Your task to perform on an android device: View the shopping cart on costco. Search for "acer predator" on costco, select the first entry, and add it to the cart. Image 0: 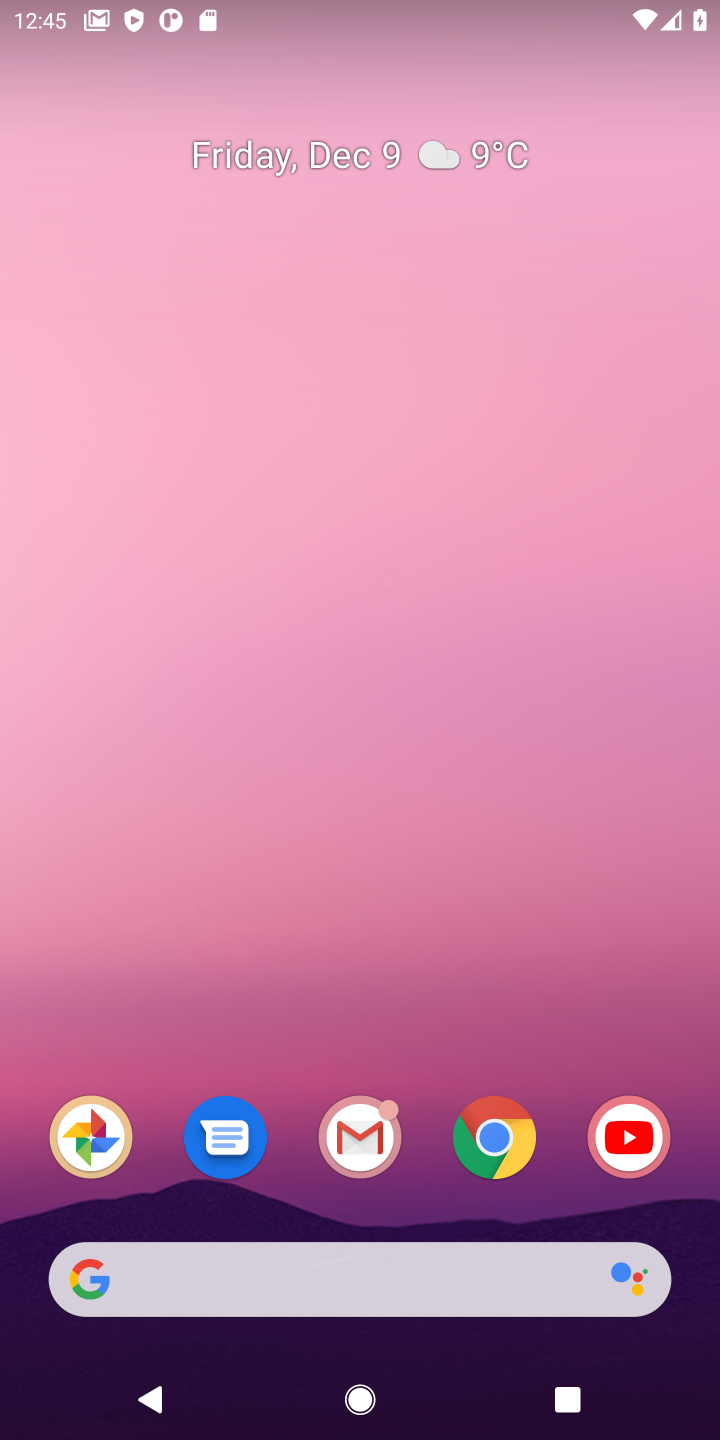
Step 0: click (449, 1251)
Your task to perform on an android device: View the shopping cart on costco. Search for "acer predator" on costco, select the first entry, and add it to the cart. Image 1: 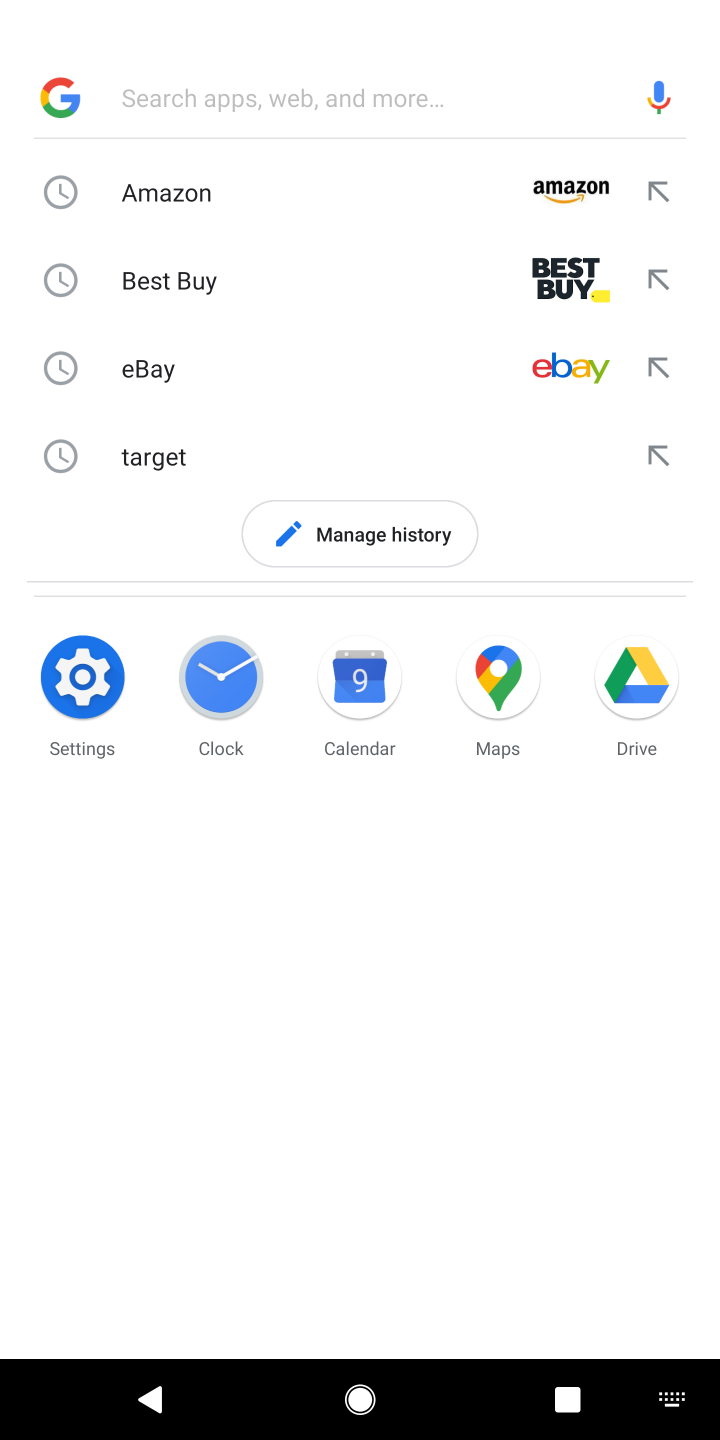
Step 1: type "costco"
Your task to perform on an android device: View the shopping cart on costco. Search for "acer predator" on costco, select the first entry, and add it to the cart. Image 2: 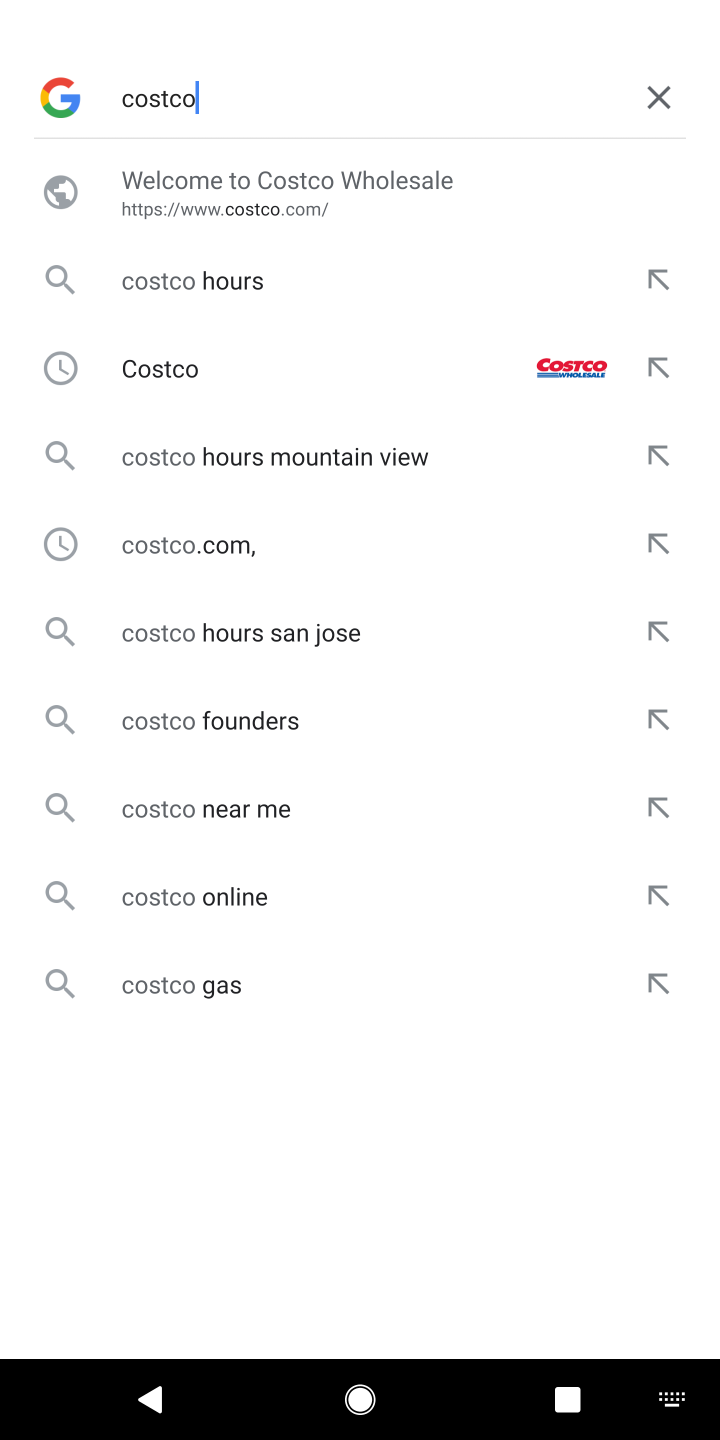
Step 2: click (188, 233)
Your task to perform on an android device: View the shopping cart on costco. Search for "acer predator" on costco, select the first entry, and add it to the cart. Image 3: 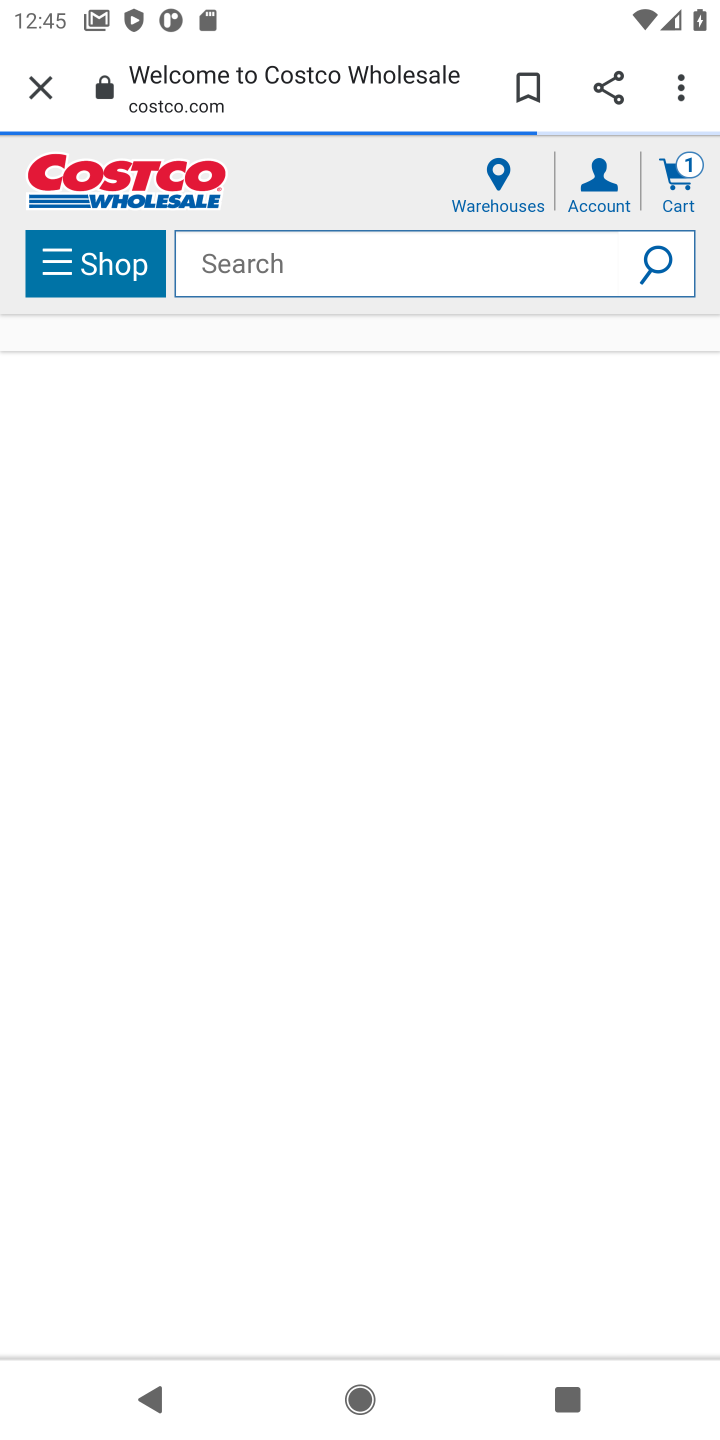
Step 3: click (291, 267)
Your task to perform on an android device: View the shopping cart on costco. Search for "acer predator" on costco, select the first entry, and add it to the cart. Image 4: 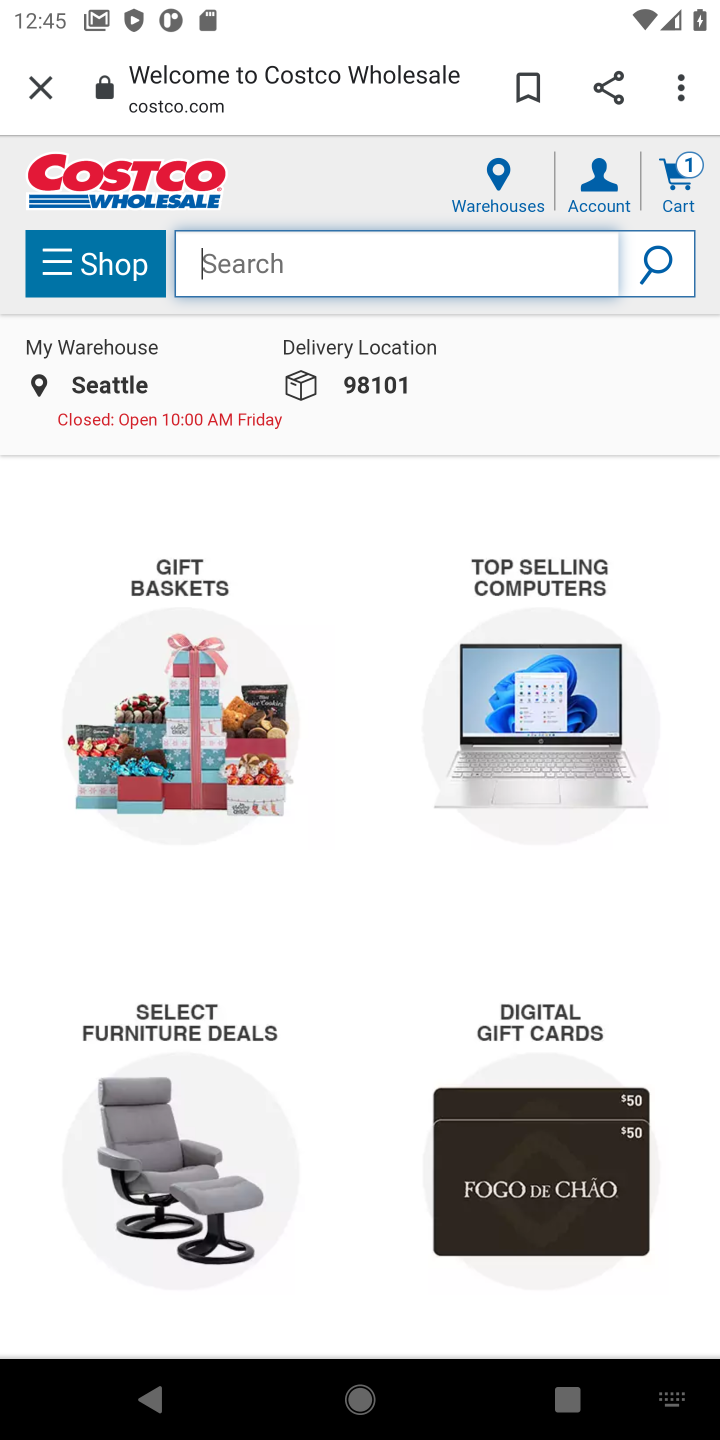
Step 4: type "acer predator"
Your task to perform on an android device: View the shopping cart on costco. Search for "acer predator" on costco, select the first entry, and add it to the cart. Image 5: 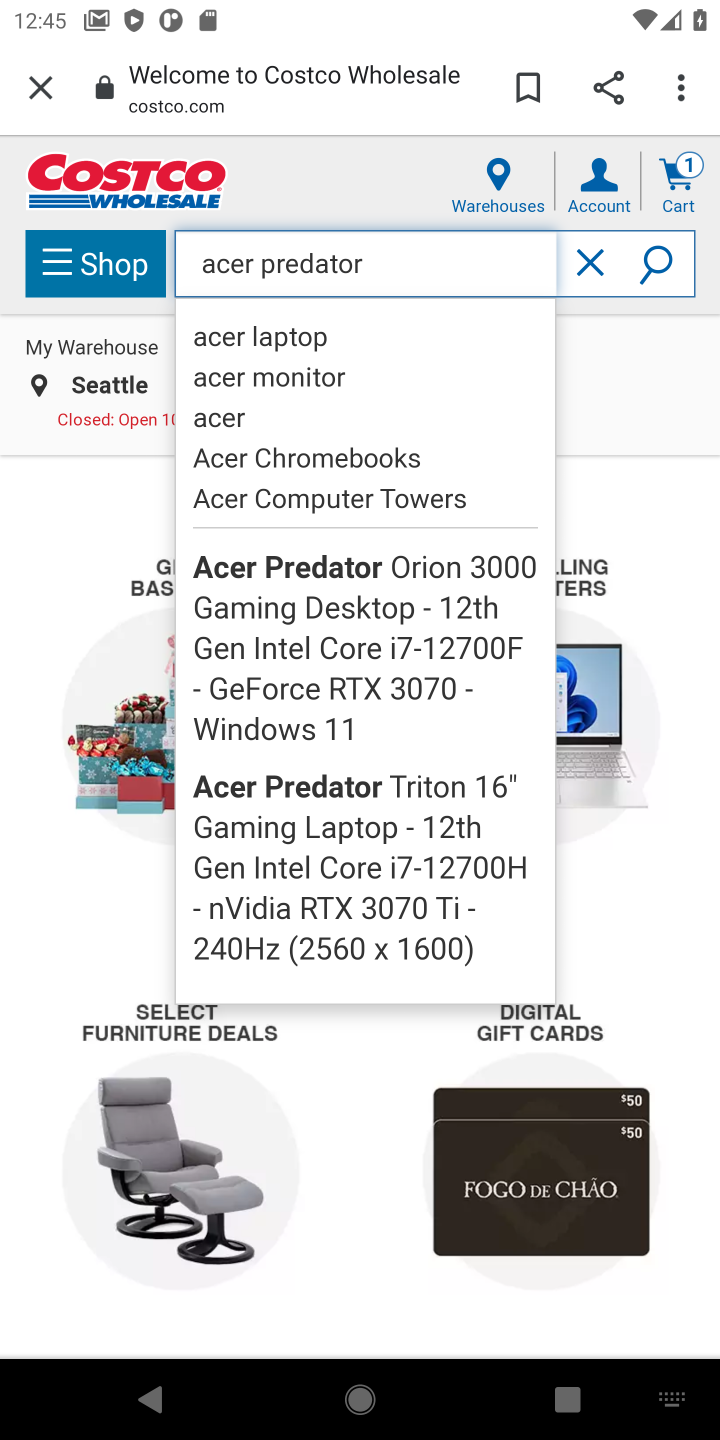
Step 5: click (666, 270)
Your task to perform on an android device: View the shopping cart on costco. Search for "acer predator" on costco, select the first entry, and add it to the cart. Image 6: 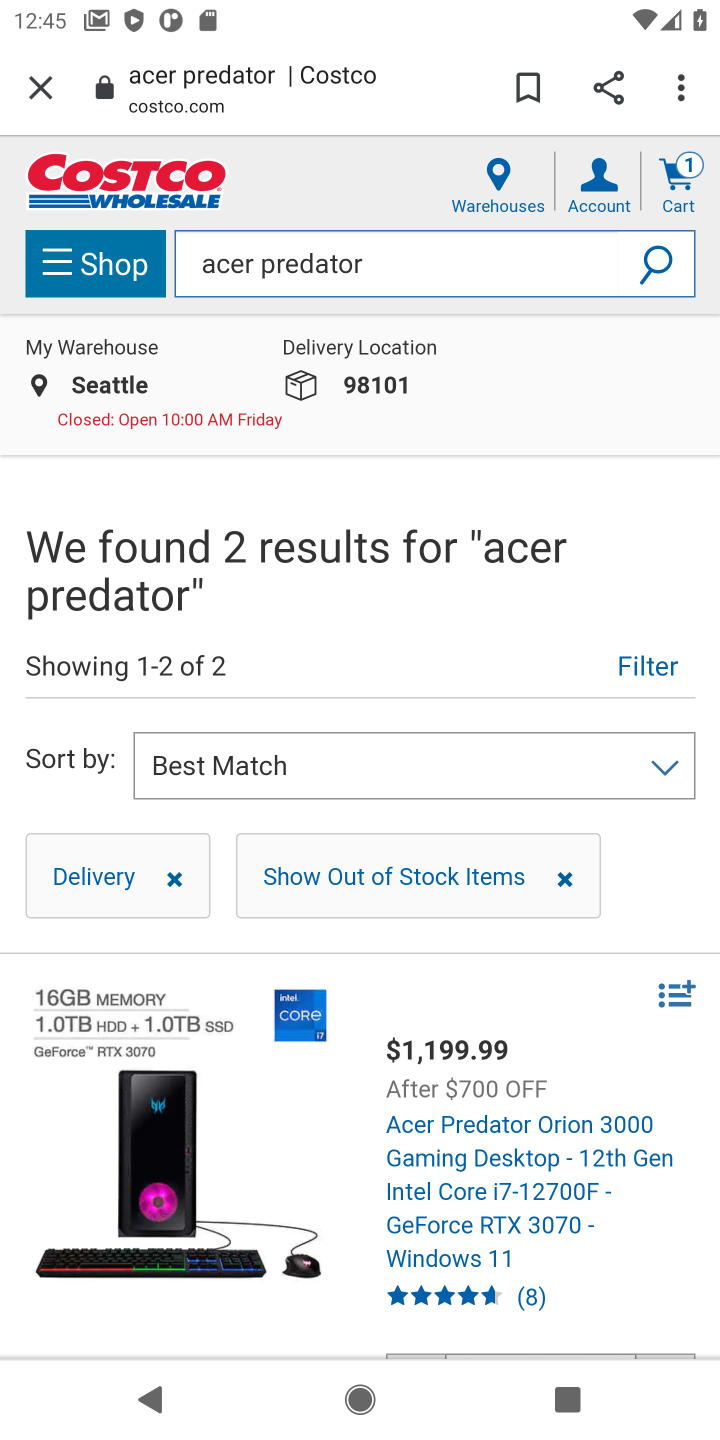
Step 6: click (336, 1083)
Your task to perform on an android device: View the shopping cart on costco. Search for "acer predator" on costco, select the first entry, and add it to the cart. Image 7: 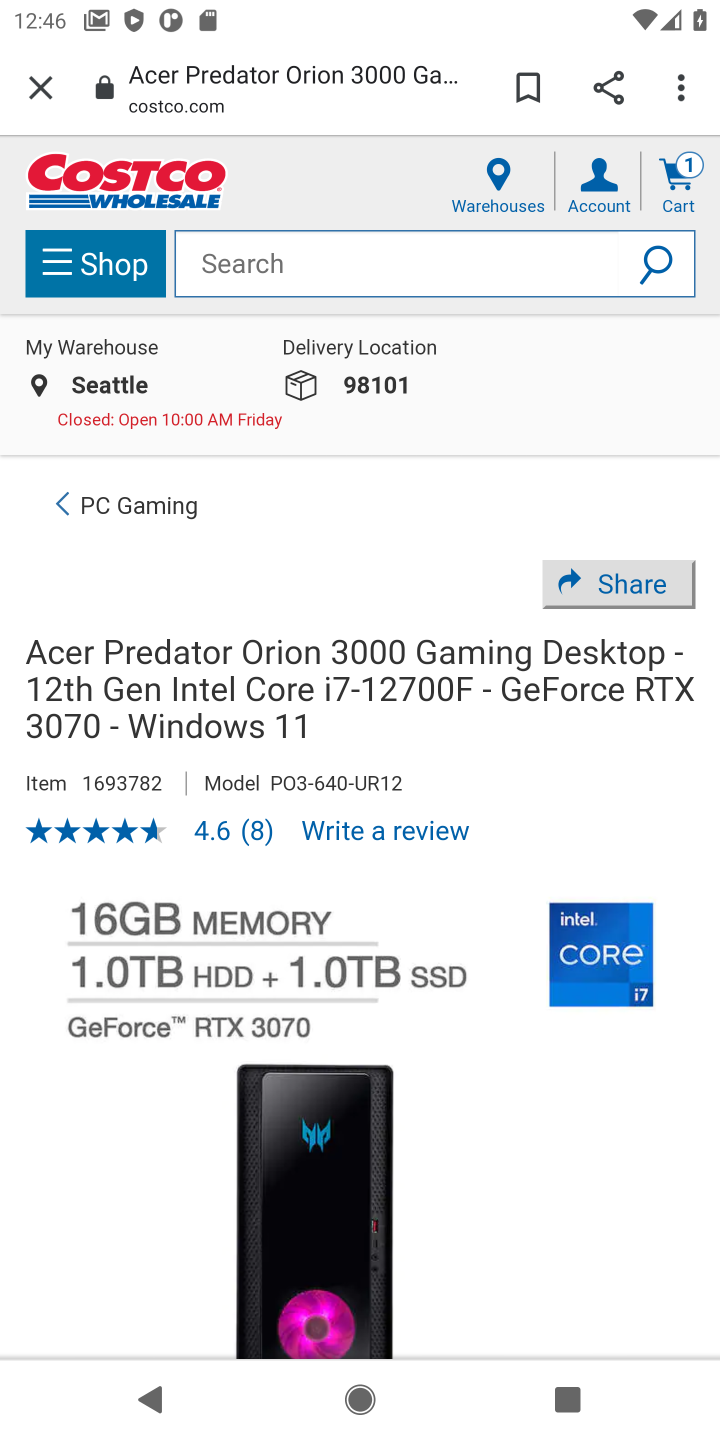
Step 7: drag from (446, 1301) to (402, 333)
Your task to perform on an android device: View the shopping cart on costco. Search for "acer predator" on costco, select the first entry, and add it to the cart. Image 8: 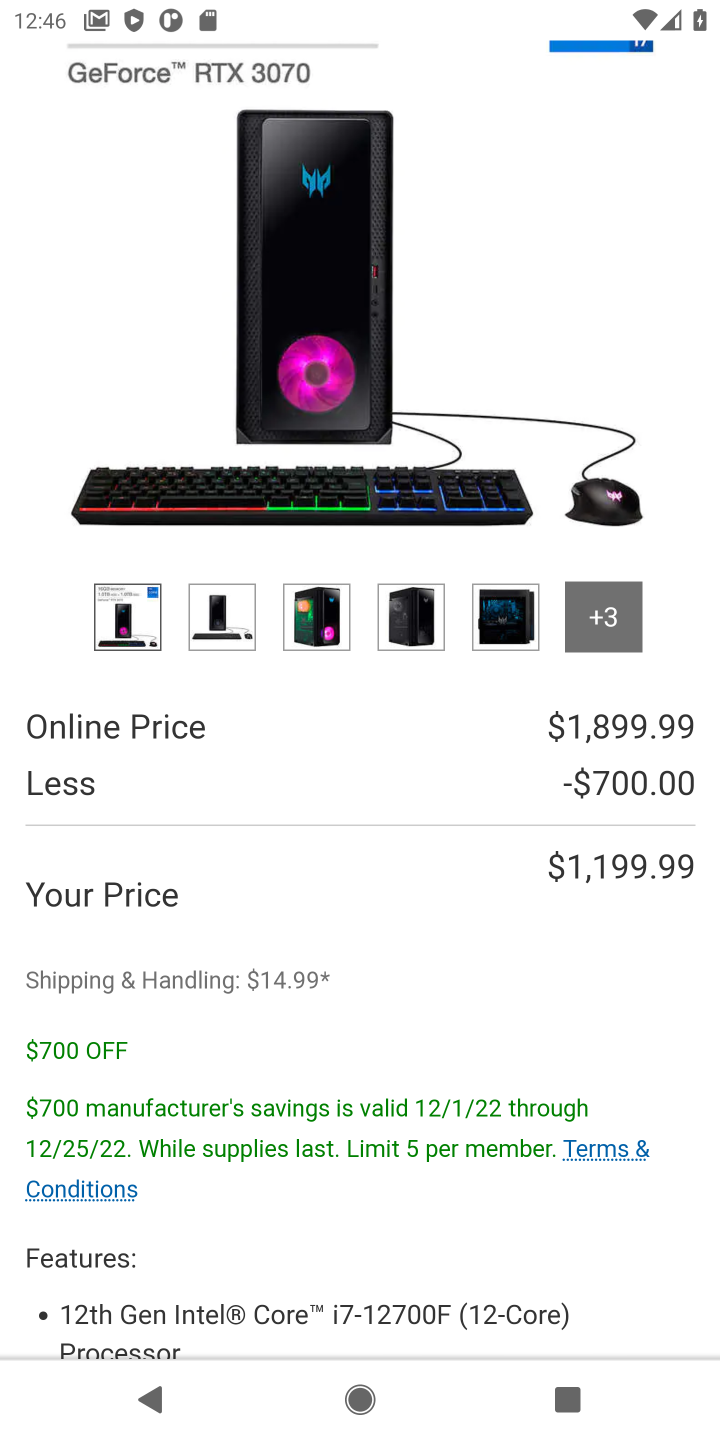
Step 8: drag from (332, 1137) to (326, 192)
Your task to perform on an android device: View the shopping cart on costco. Search for "acer predator" on costco, select the first entry, and add it to the cart. Image 9: 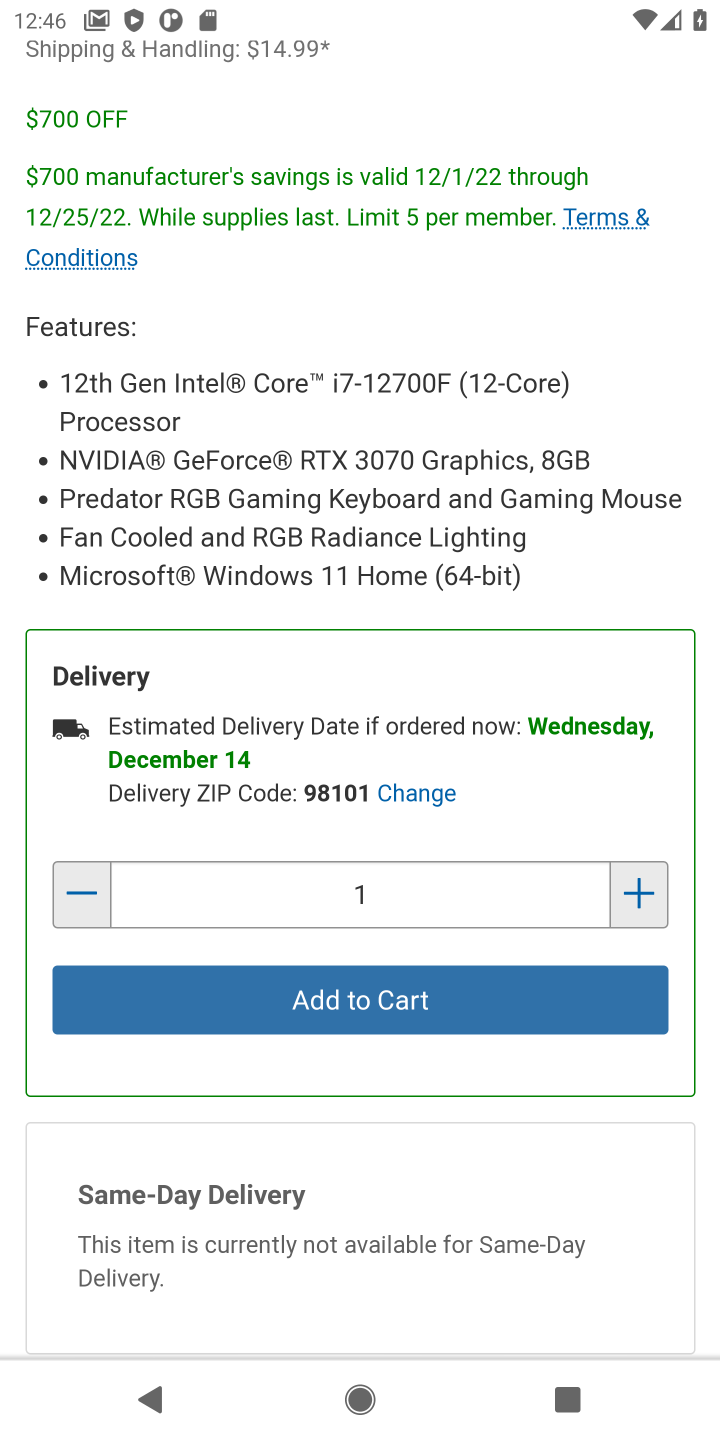
Step 9: click (443, 975)
Your task to perform on an android device: View the shopping cart on costco. Search for "acer predator" on costco, select the first entry, and add it to the cart. Image 10: 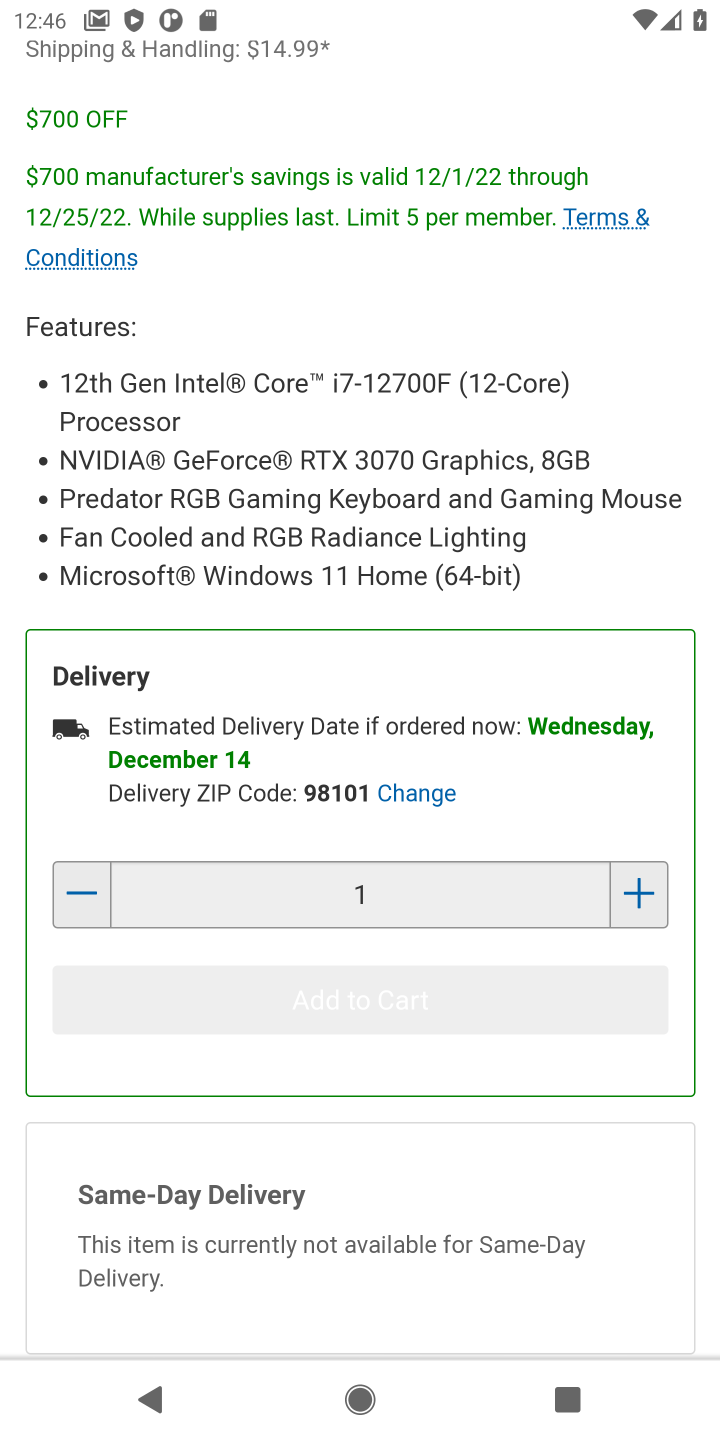
Step 10: task complete